Your task to perform on an android device: turn on the 12-hour format for clock Image 0: 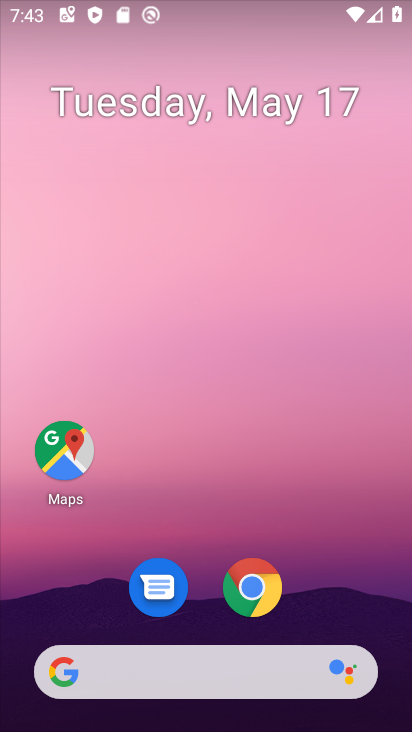
Step 0: drag from (340, 572) to (304, 144)
Your task to perform on an android device: turn on the 12-hour format for clock Image 1: 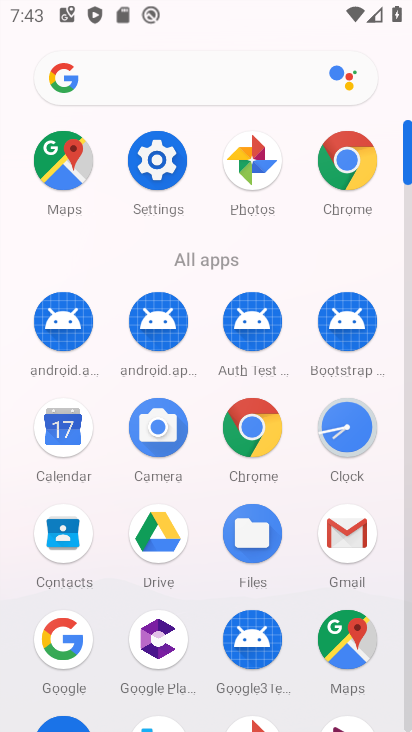
Step 1: click (350, 444)
Your task to perform on an android device: turn on the 12-hour format for clock Image 2: 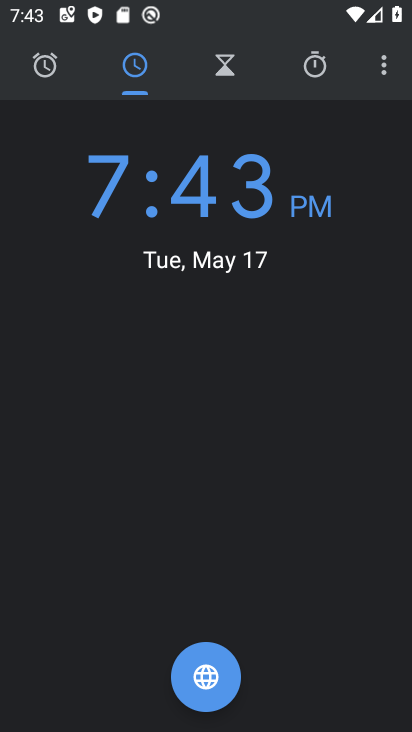
Step 2: click (386, 60)
Your task to perform on an android device: turn on the 12-hour format for clock Image 3: 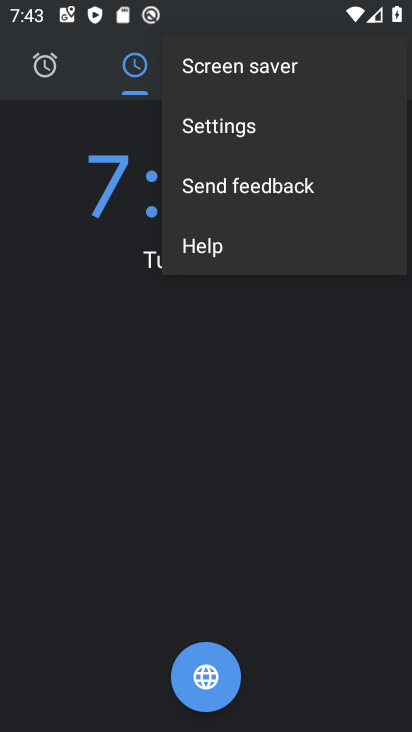
Step 3: click (261, 134)
Your task to perform on an android device: turn on the 12-hour format for clock Image 4: 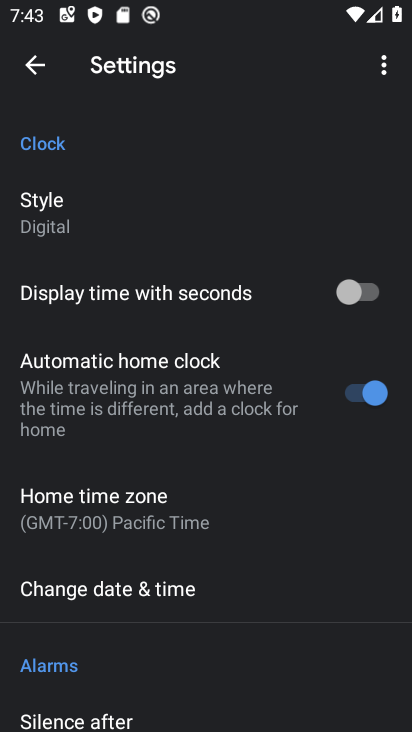
Step 4: click (139, 595)
Your task to perform on an android device: turn on the 12-hour format for clock Image 5: 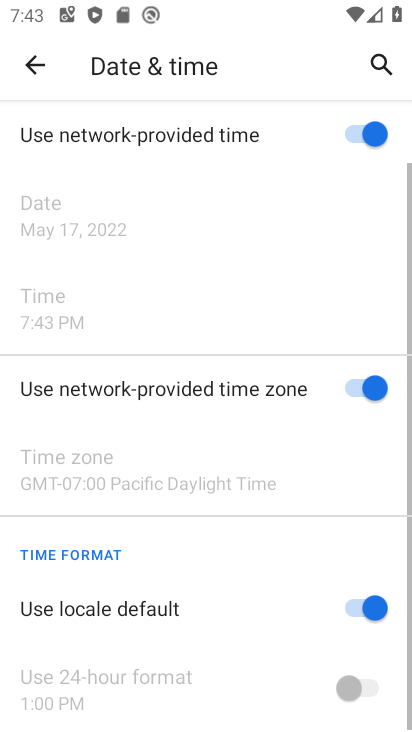
Step 5: task complete